Your task to perform on an android device: turn on translation in the chrome app Image 0: 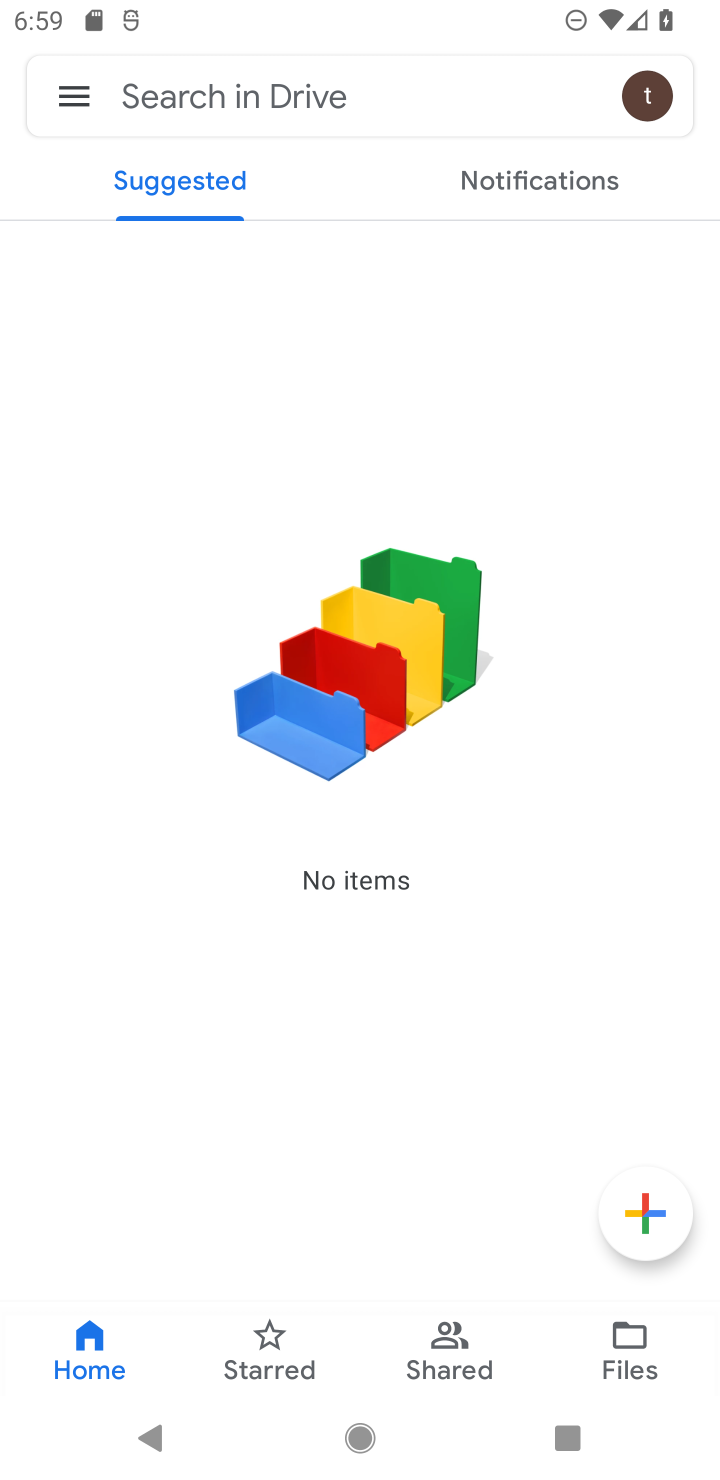
Step 0: press home button
Your task to perform on an android device: turn on translation in the chrome app Image 1: 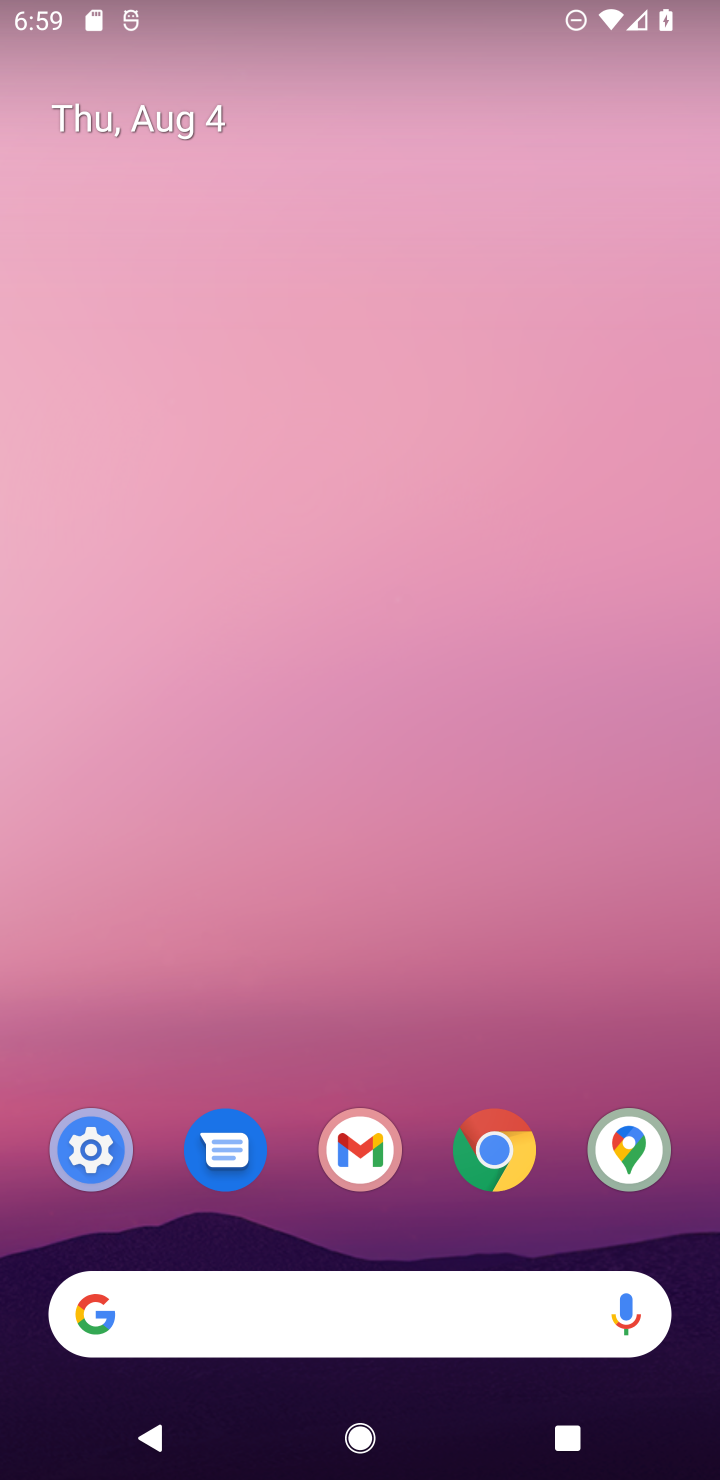
Step 1: drag from (358, 1334) to (406, 14)
Your task to perform on an android device: turn on translation in the chrome app Image 2: 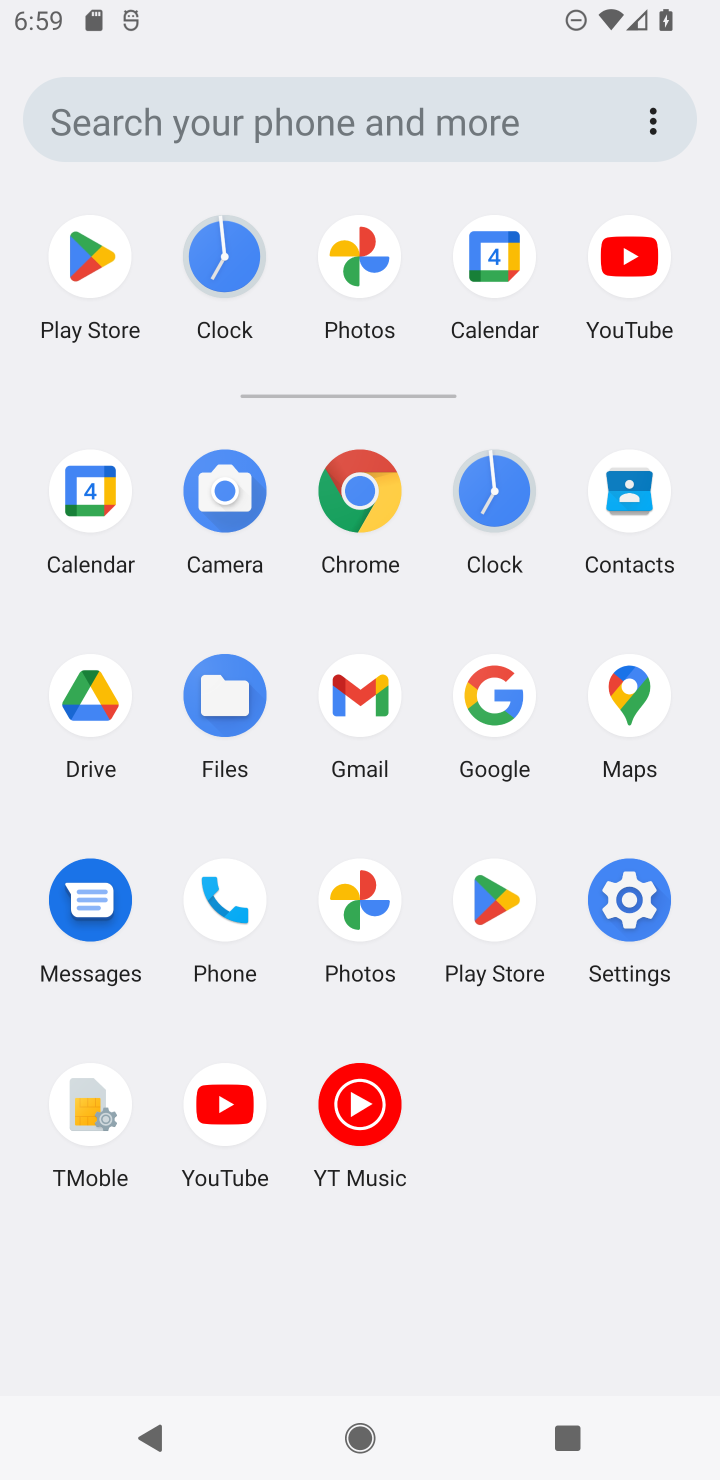
Step 2: click (360, 477)
Your task to perform on an android device: turn on translation in the chrome app Image 3: 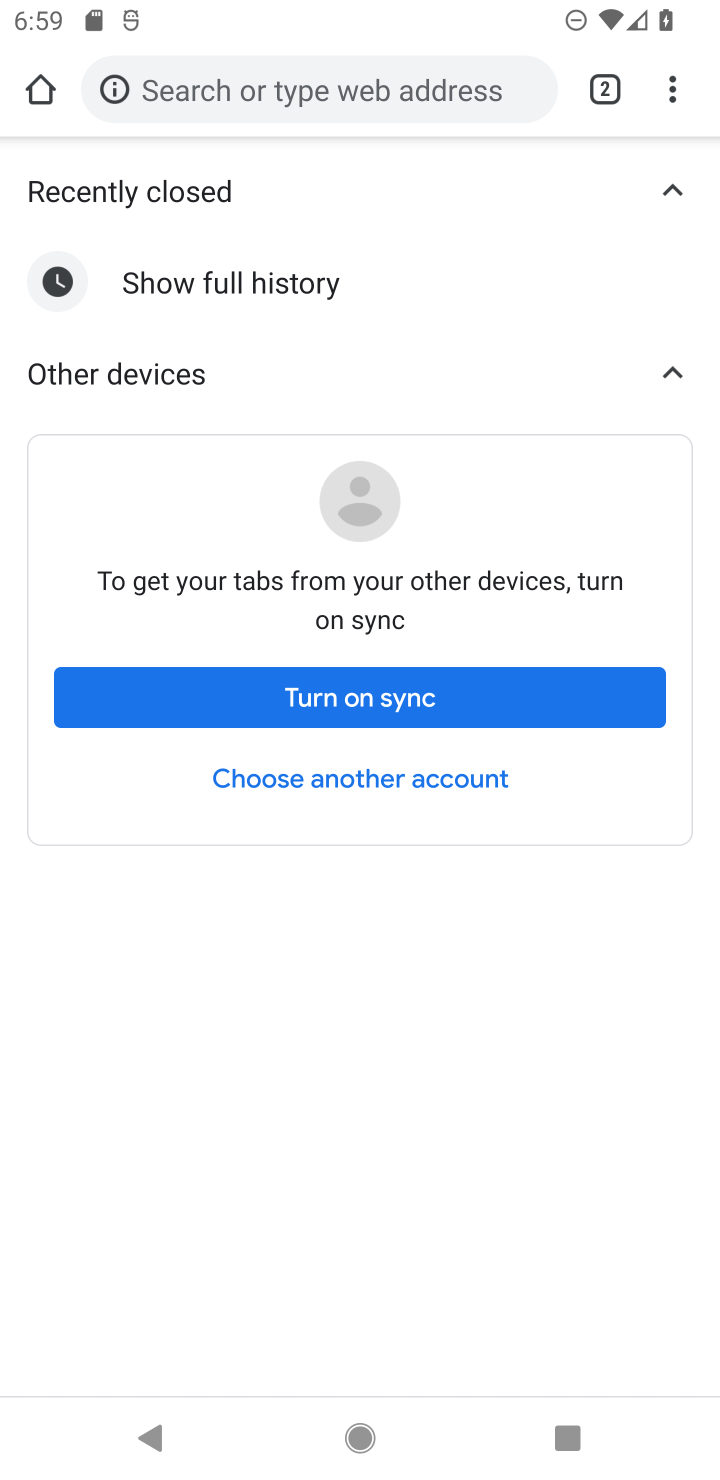
Step 3: drag from (670, 81) to (399, 908)
Your task to perform on an android device: turn on translation in the chrome app Image 4: 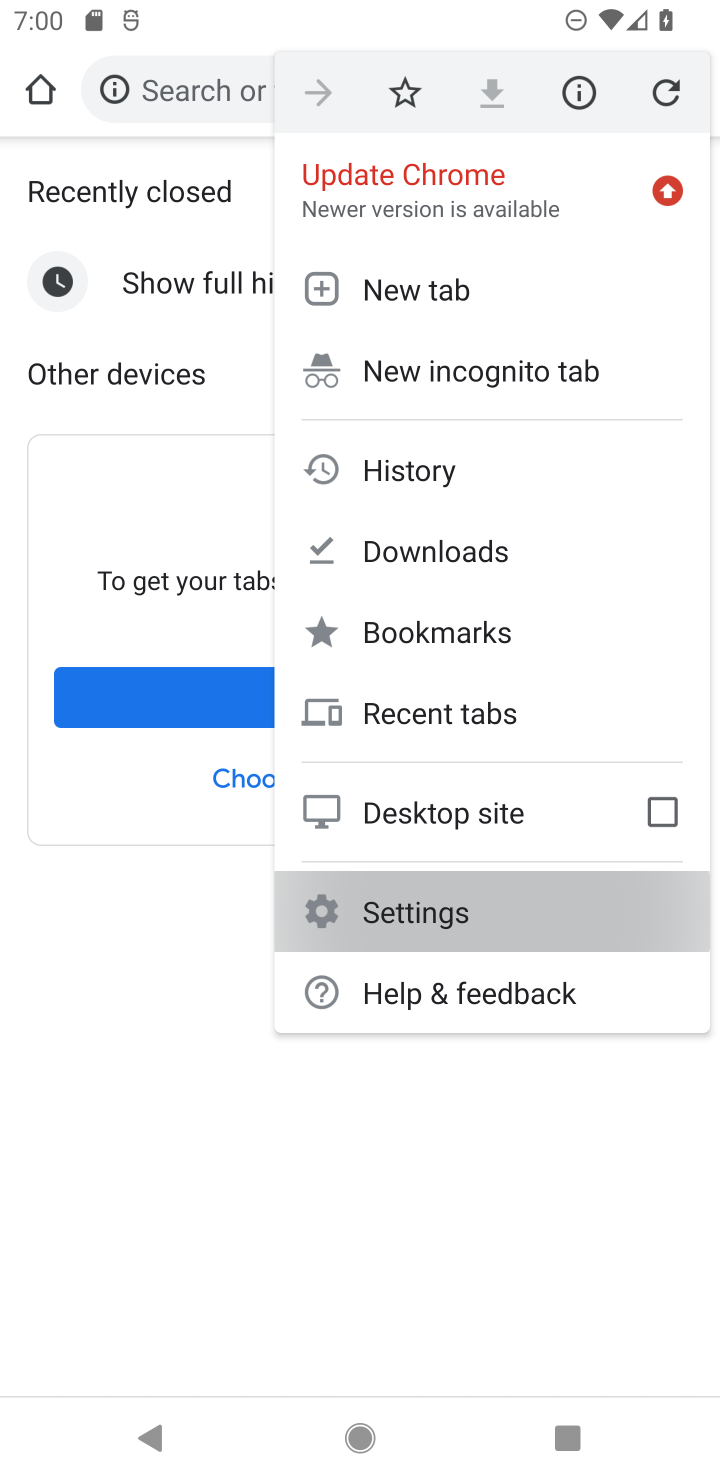
Step 4: click (399, 908)
Your task to perform on an android device: turn on translation in the chrome app Image 5: 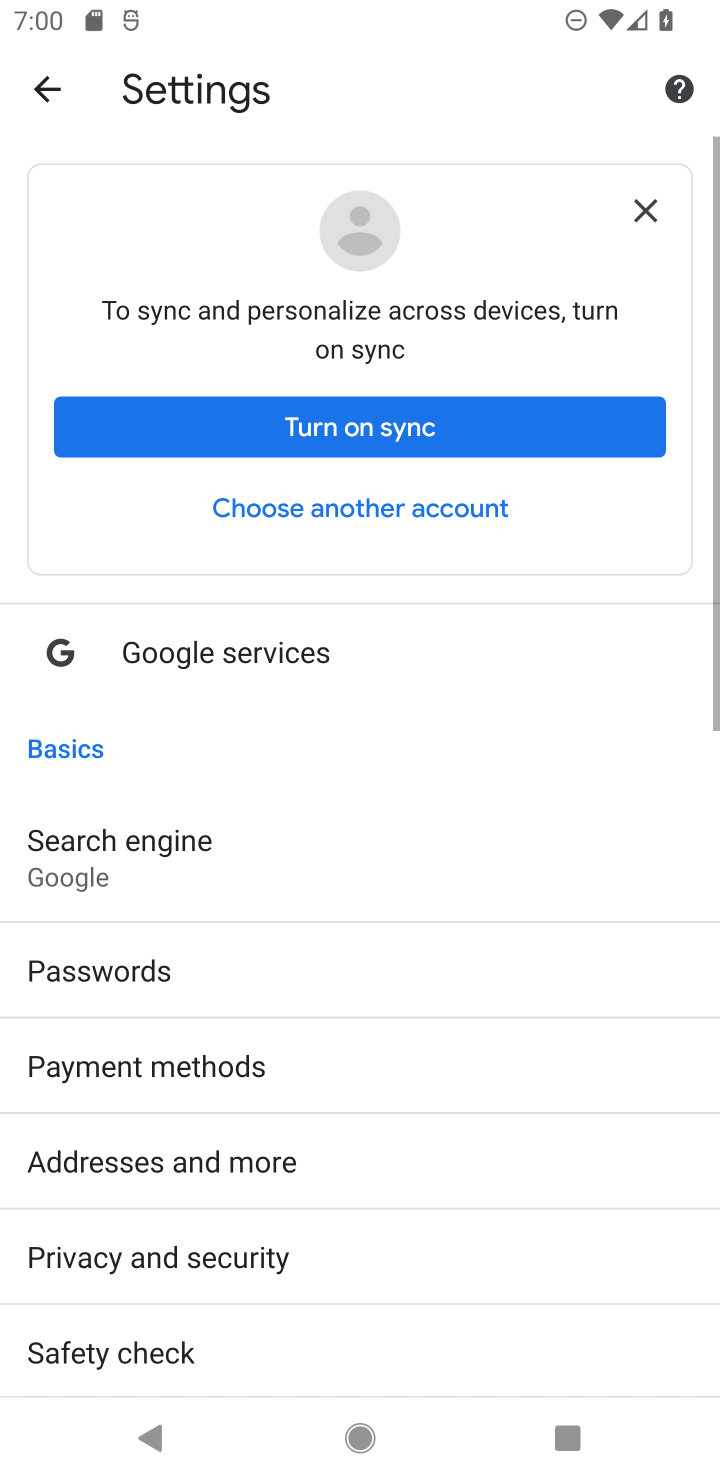
Step 5: drag from (342, 1312) to (468, 216)
Your task to perform on an android device: turn on translation in the chrome app Image 6: 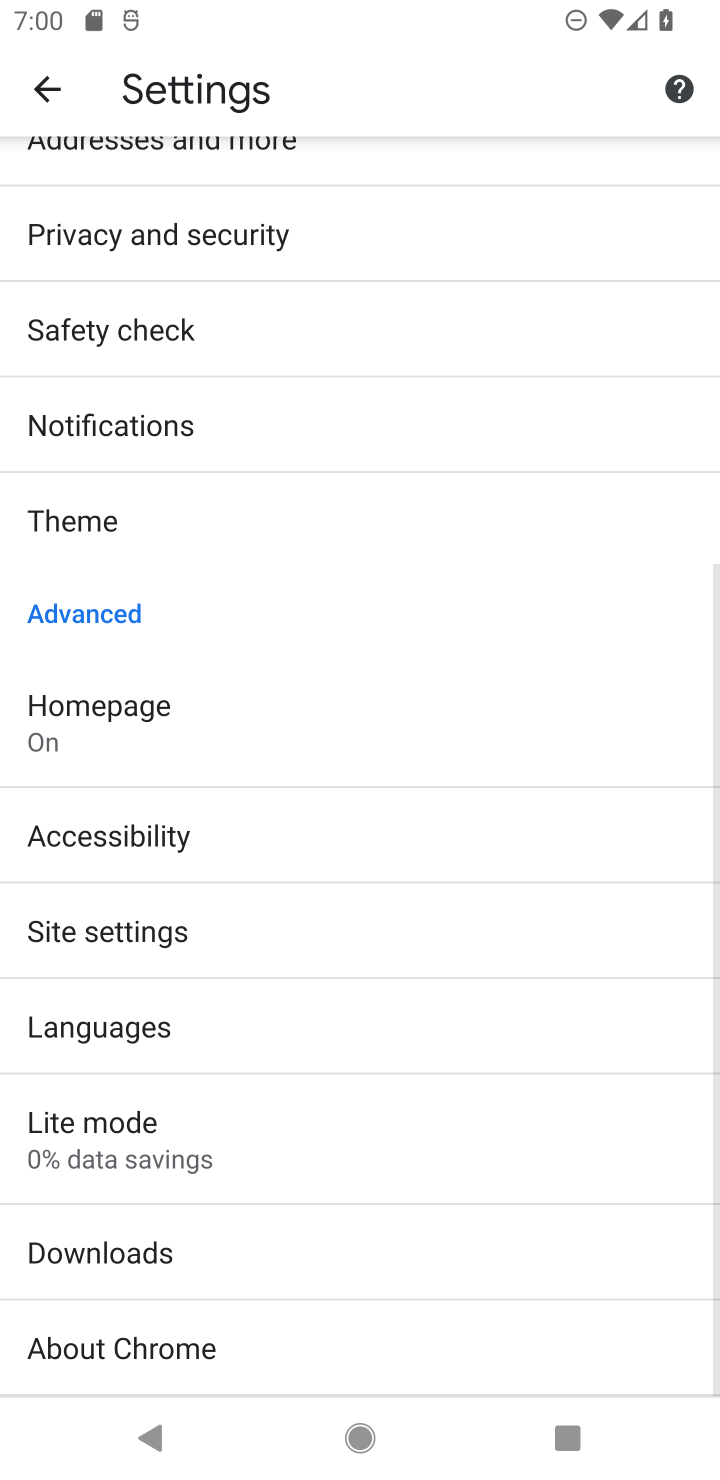
Step 6: click (199, 1042)
Your task to perform on an android device: turn on translation in the chrome app Image 7: 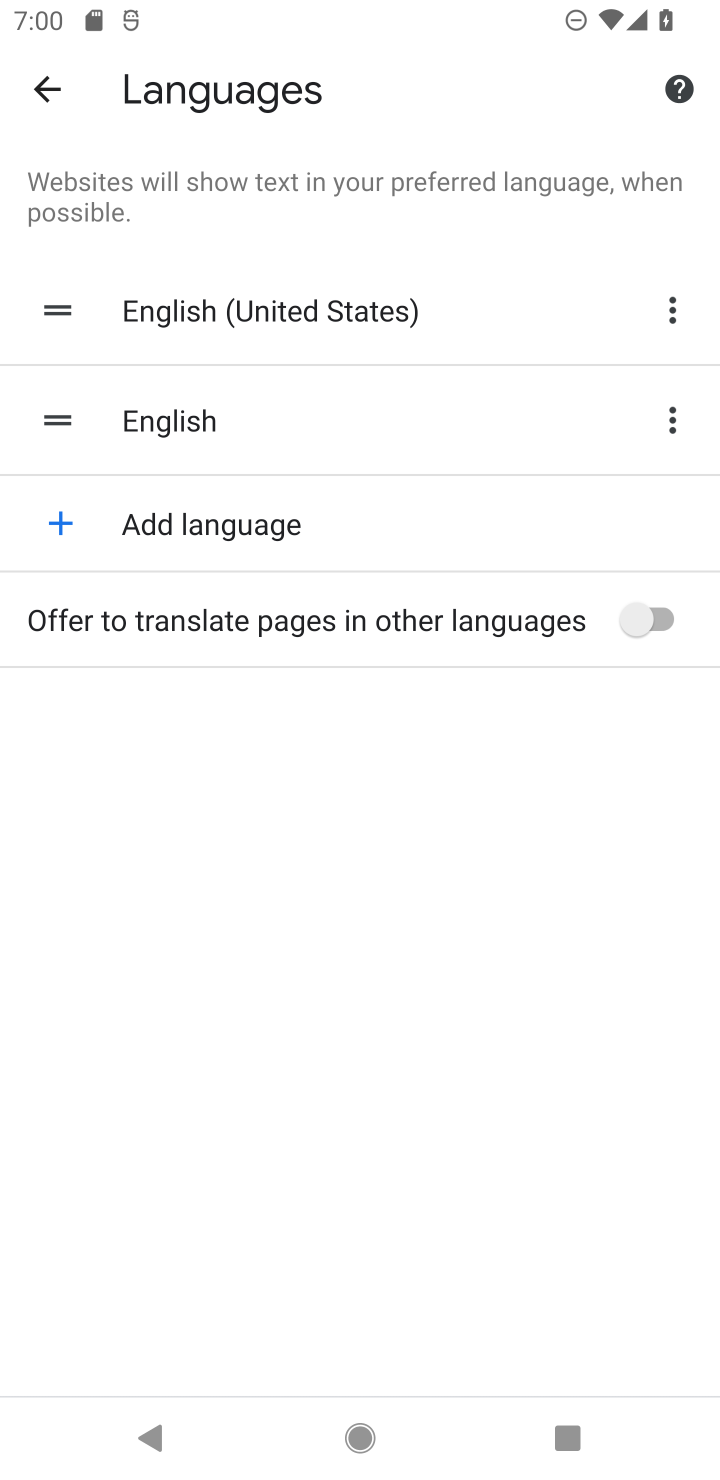
Step 7: click (662, 618)
Your task to perform on an android device: turn on translation in the chrome app Image 8: 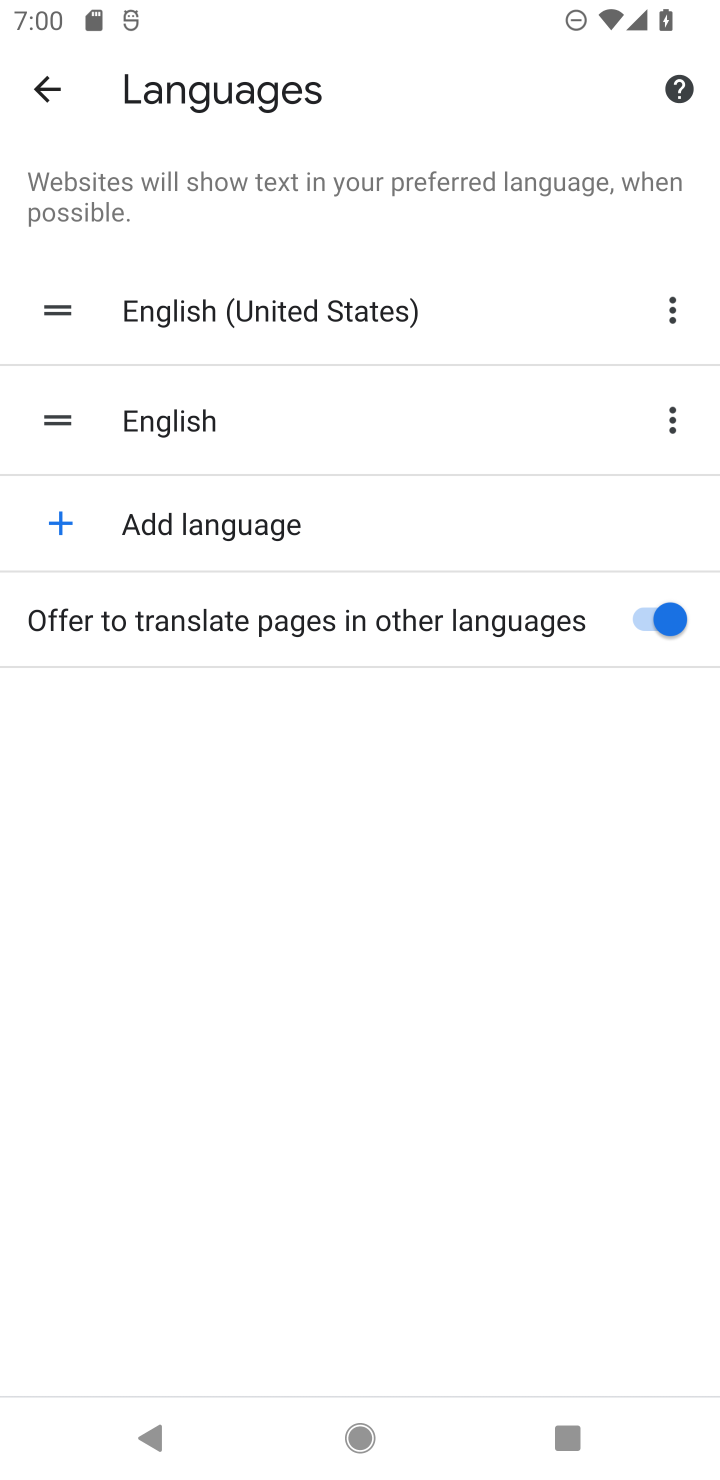
Step 8: task complete